Your task to perform on an android device: Check the news Image 0: 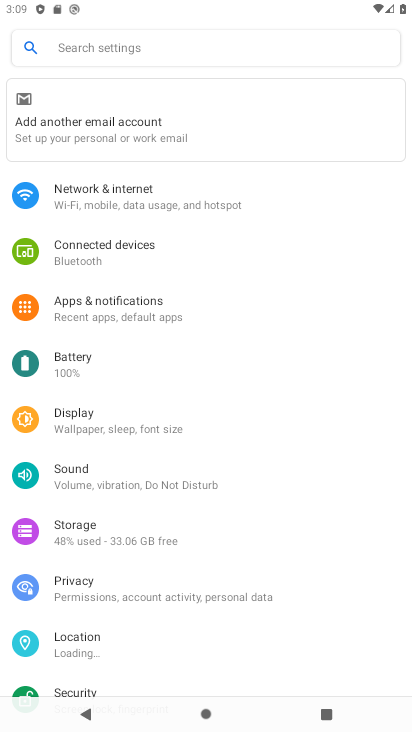
Step 0: press home button
Your task to perform on an android device: Check the news Image 1: 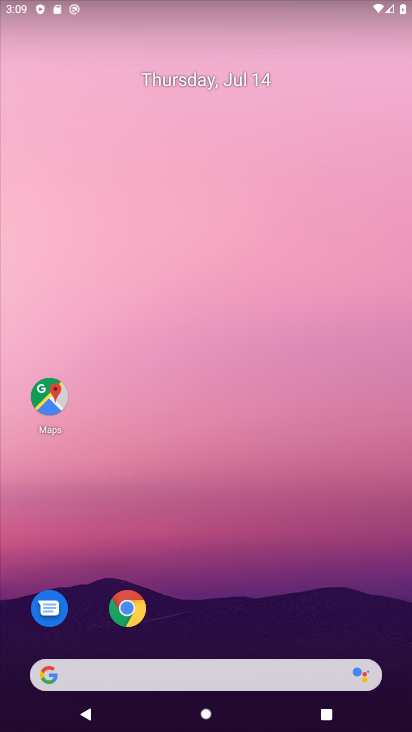
Step 1: task complete